Your task to perform on an android device: visit the assistant section in the google photos Image 0: 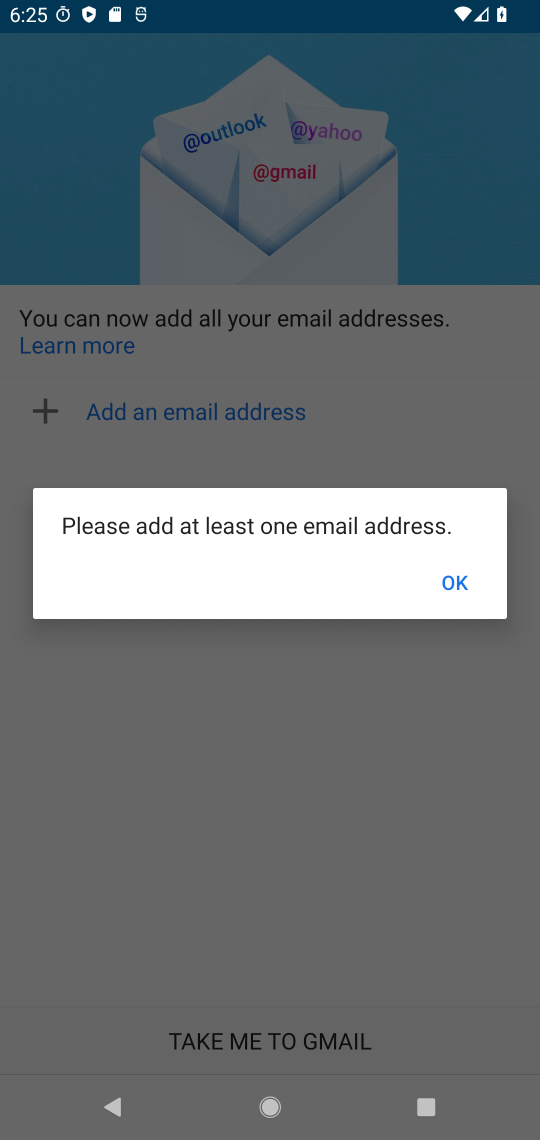
Step 0: press home button
Your task to perform on an android device: visit the assistant section in the google photos Image 1: 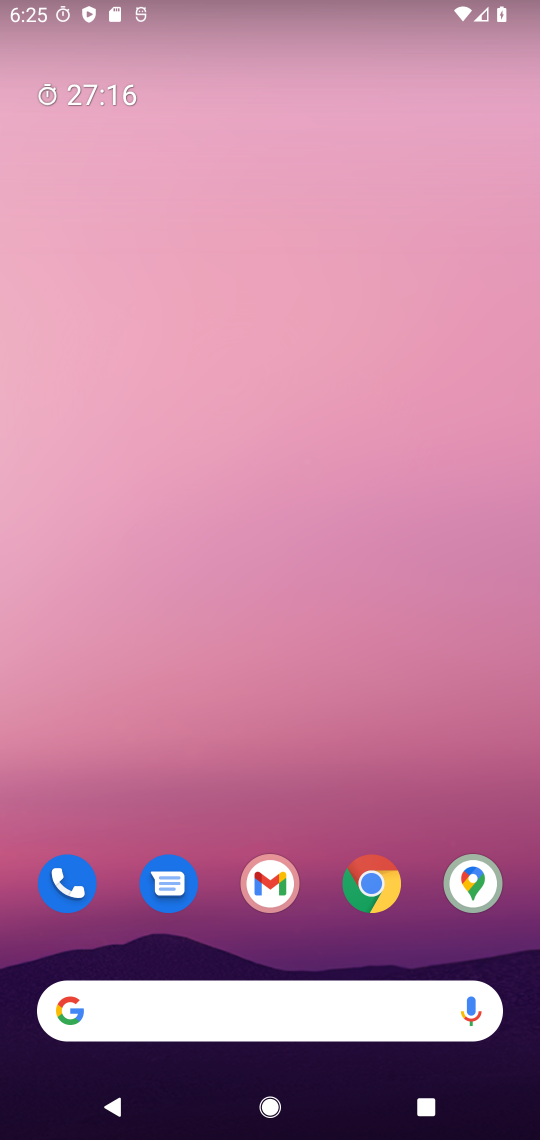
Step 1: drag from (325, 785) to (367, 235)
Your task to perform on an android device: visit the assistant section in the google photos Image 2: 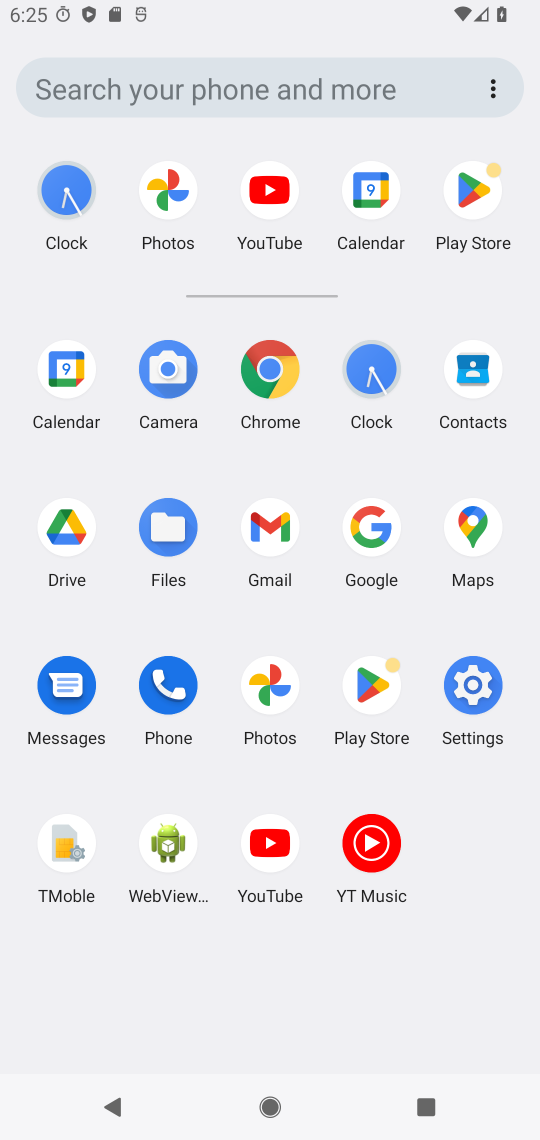
Step 2: click (158, 206)
Your task to perform on an android device: visit the assistant section in the google photos Image 3: 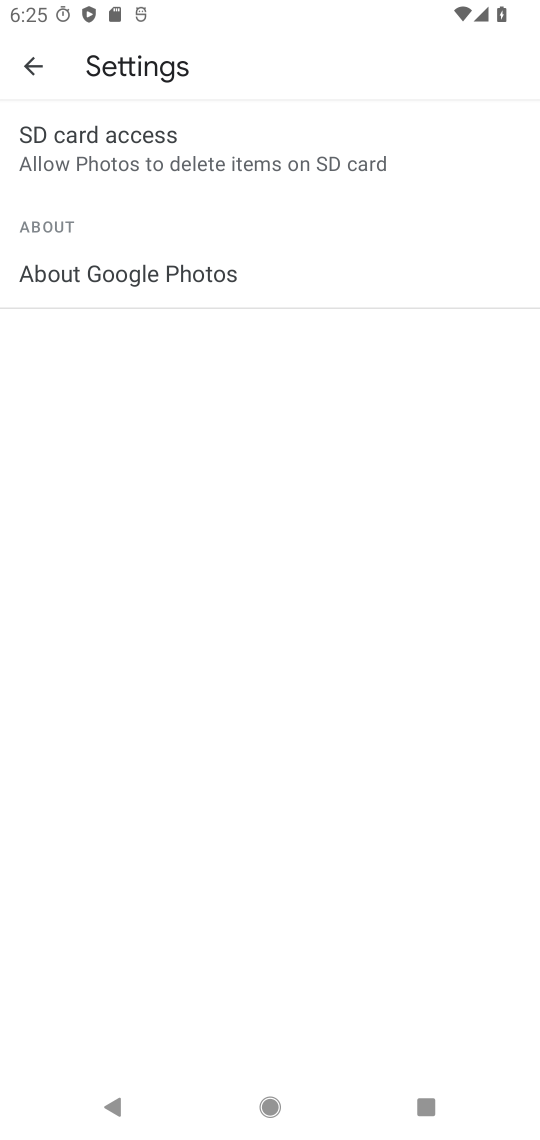
Step 3: click (37, 79)
Your task to perform on an android device: visit the assistant section in the google photos Image 4: 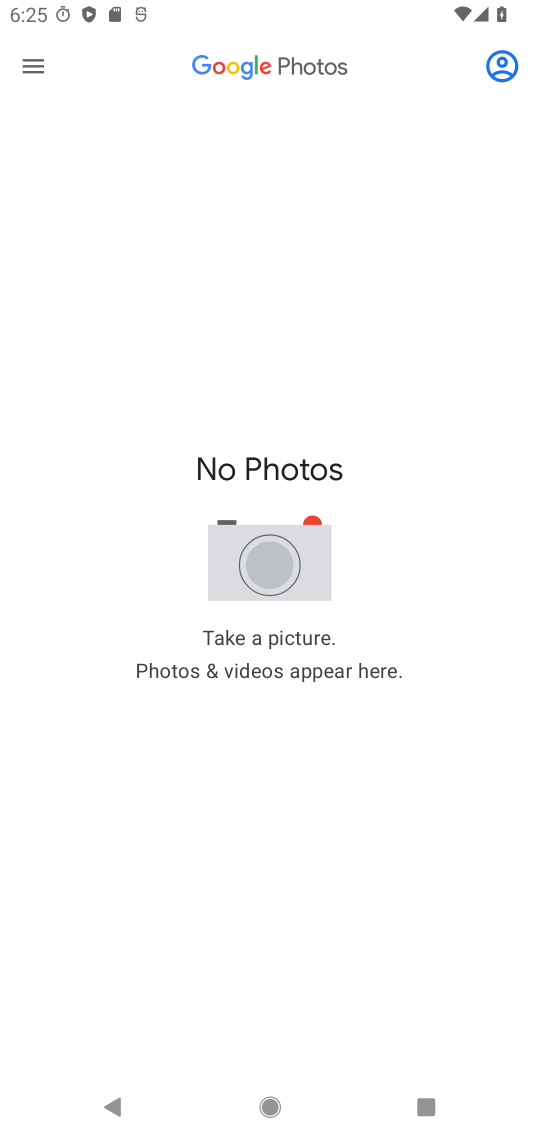
Step 4: task complete